Your task to perform on an android device: Search for sushi restaurants on Maps Image 0: 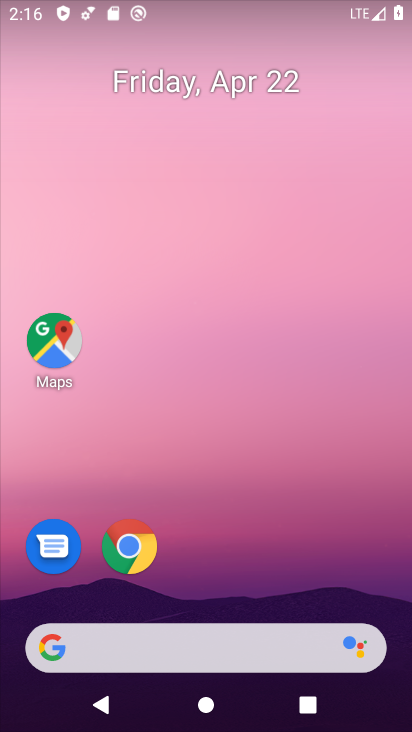
Step 0: drag from (248, 570) to (318, 90)
Your task to perform on an android device: Search for sushi restaurants on Maps Image 1: 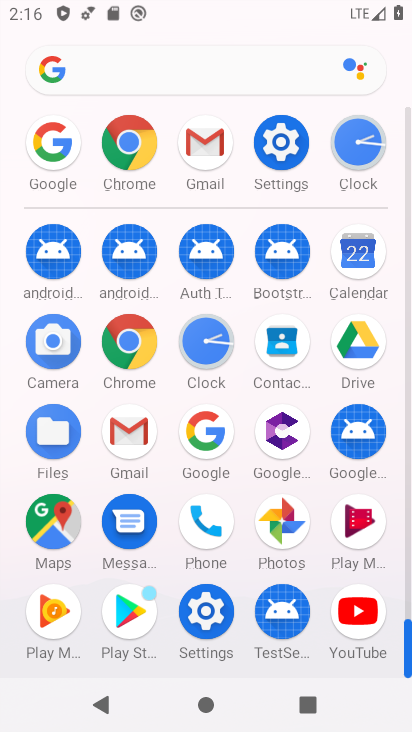
Step 1: click (57, 532)
Your task to perform on an android device: Search for sushi restaurants on Maps Image 2: 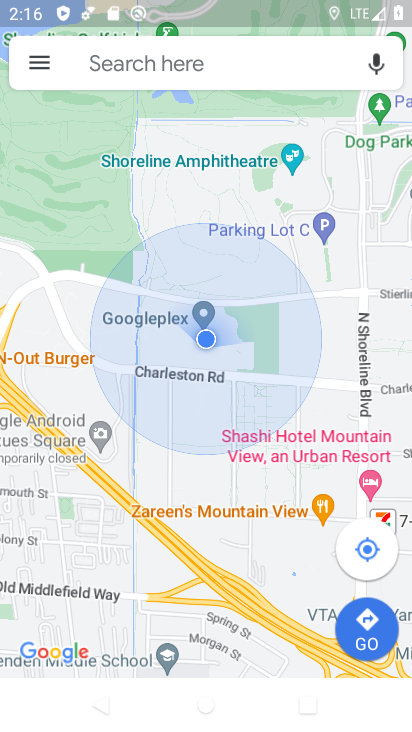
Step 2: click (241, 63)
Your task to perform on an android device: Search for sushi restaurants on Maps Image 3: 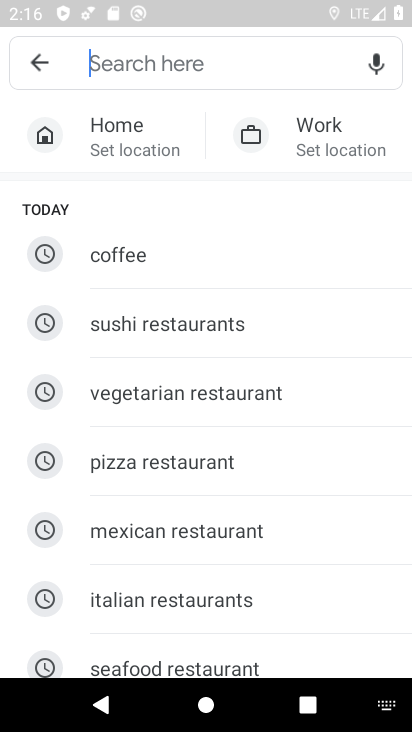
Step 3: click (241, 314)
Your task to perform on an android device: Search for sushi restaurants on Maps Image 4: 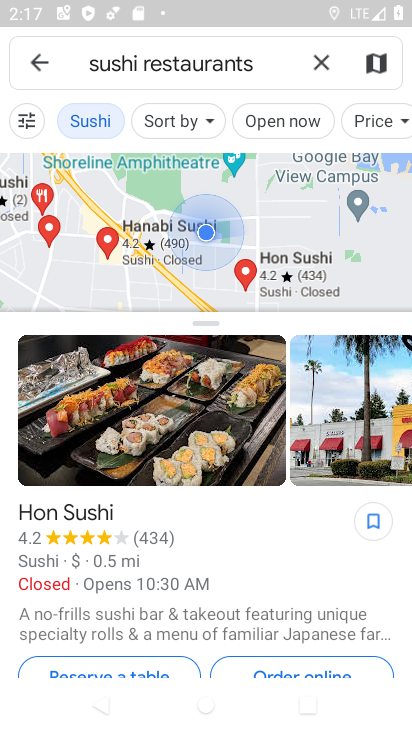
Step 4: task complete